Your task to perform on an android device: remove spam from my inbox in the gmail app Image 0: 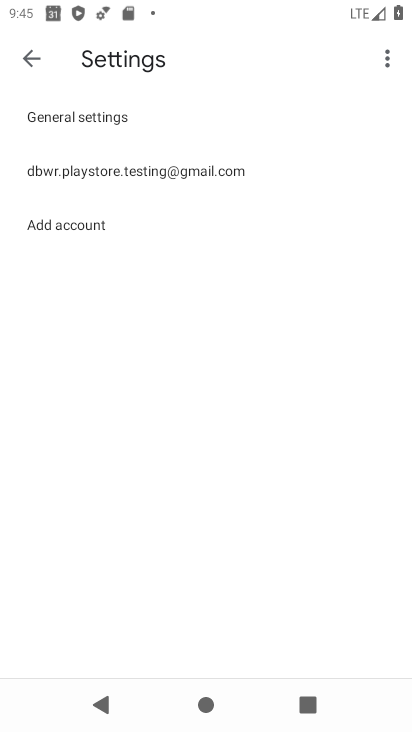
Step 0: press home button
Your task to perform on an android device: remove spam from my inbox in the gmail app Image 1: 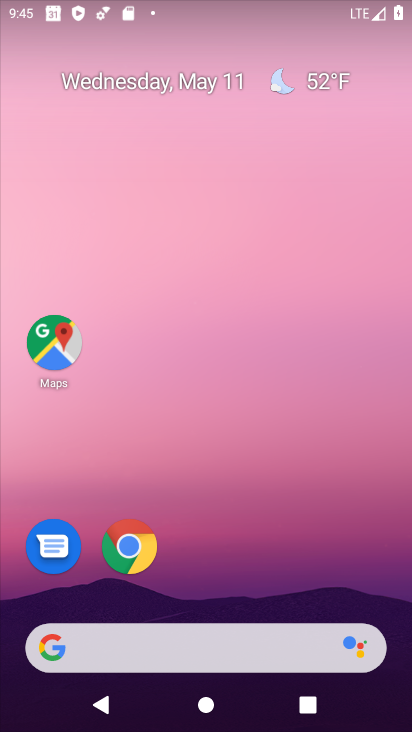
Step 1: drag from (205, 630) to (192, 208)
Your task to perform on an android device: remove spam from my inbox in the gmail app Image 2: 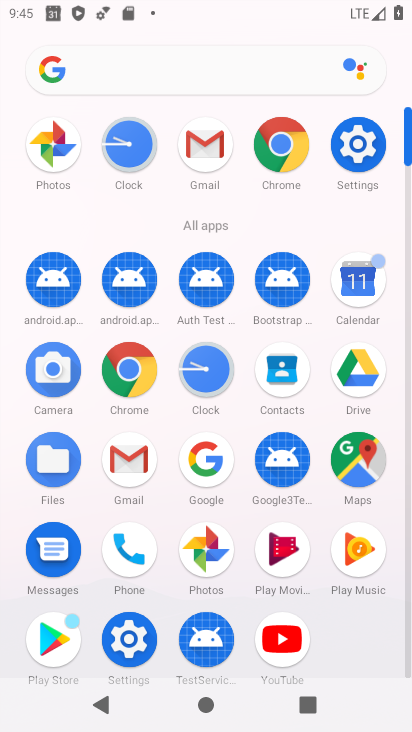
Step 2: click (212, 150)
Your task to perform on an android device: remove spam from my inbox in the gmail app Image 3: 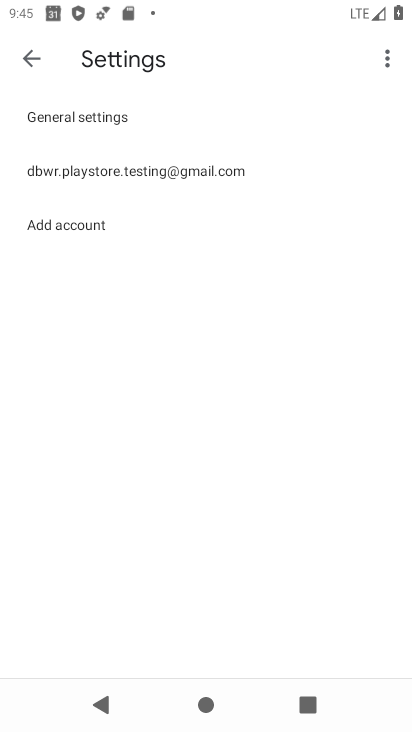
Step 3: click (31, 71)
Your task to perform on an android device: remove spam from my inbox in the gmail app Image 4: 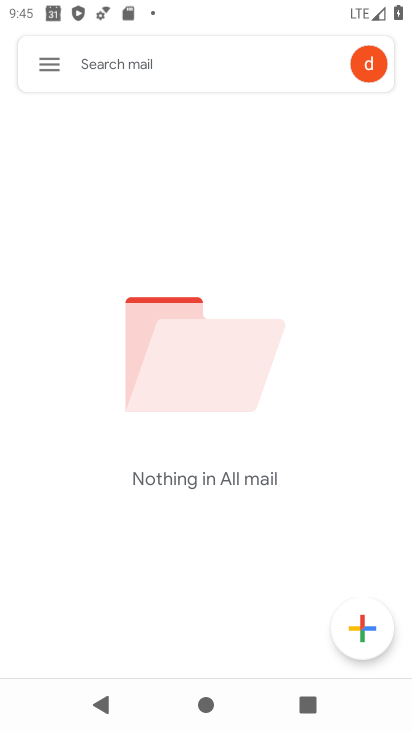
Step 4: click (45, 63)
Your task to perform on an android device: remove spam from my inbox in the gmail app Image 5: 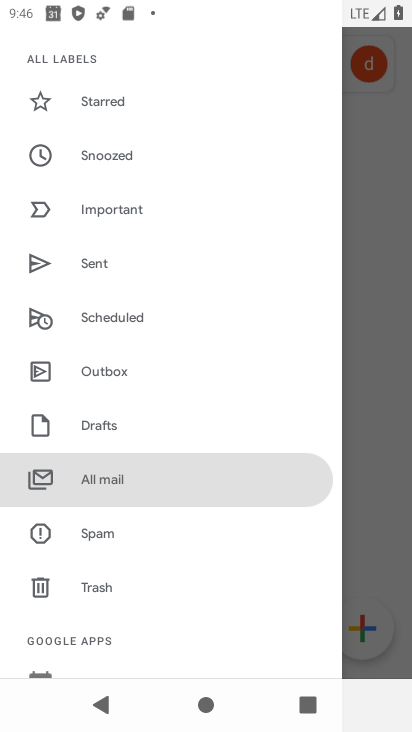
Step 5: click (124, 532)
Your task to perform on an android device: remove spam from my inbox in the gmail app Image 6: 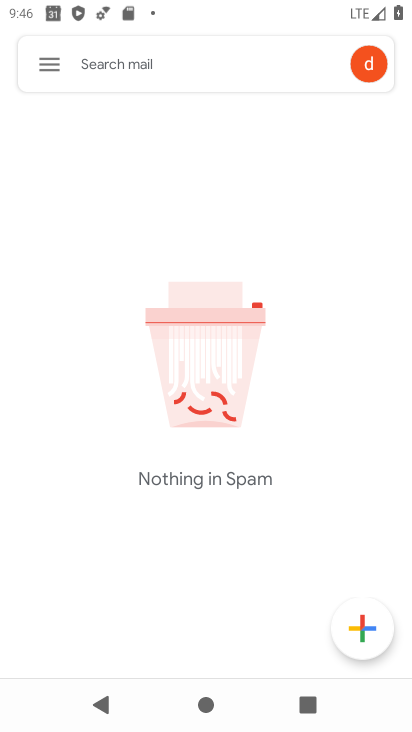
Step 6: task complete